Your task to perform on an android device: Open maps Image 0: 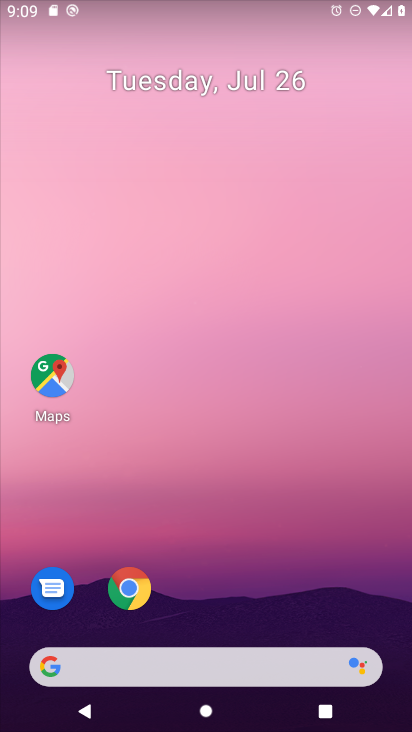
Step 0: drag from (227, 654) to (263, 112)
Your task to perform on an android device: Open maps Image 1: 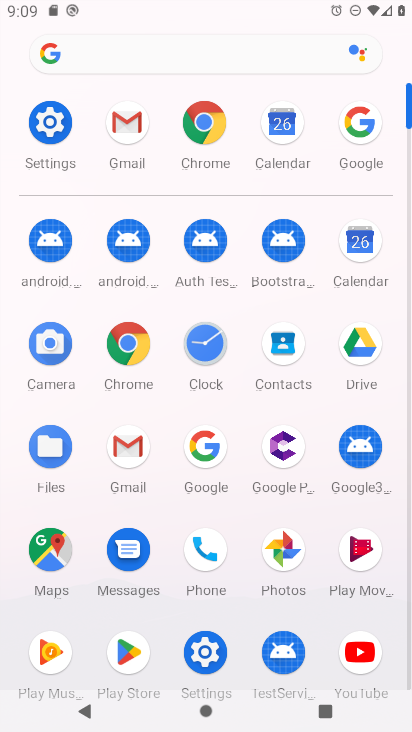
Step 1: click (59, 555)
Your task to perform on an android device: Open maps Image 2: 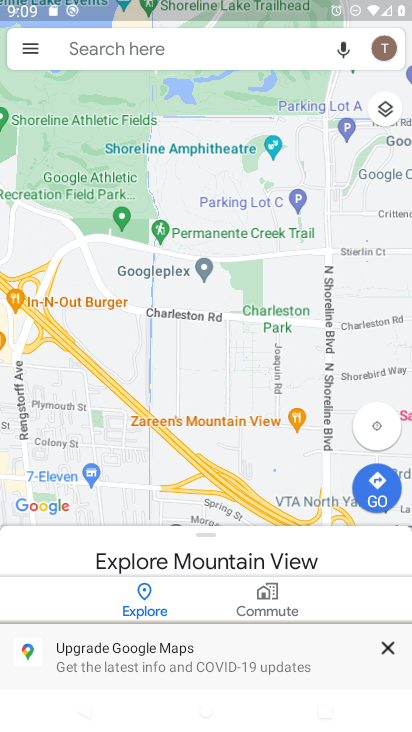
Step 2: task complete